Your task to perform on an android device: Check the news Image 0: 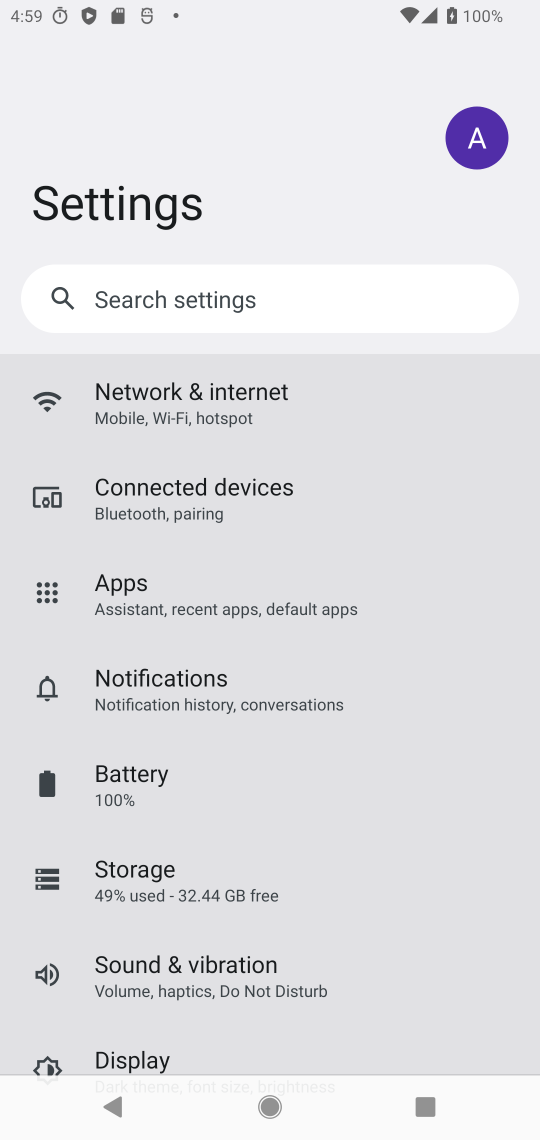
Step 0: press home button
Your task to perform on an android device: Check the news Image 1: 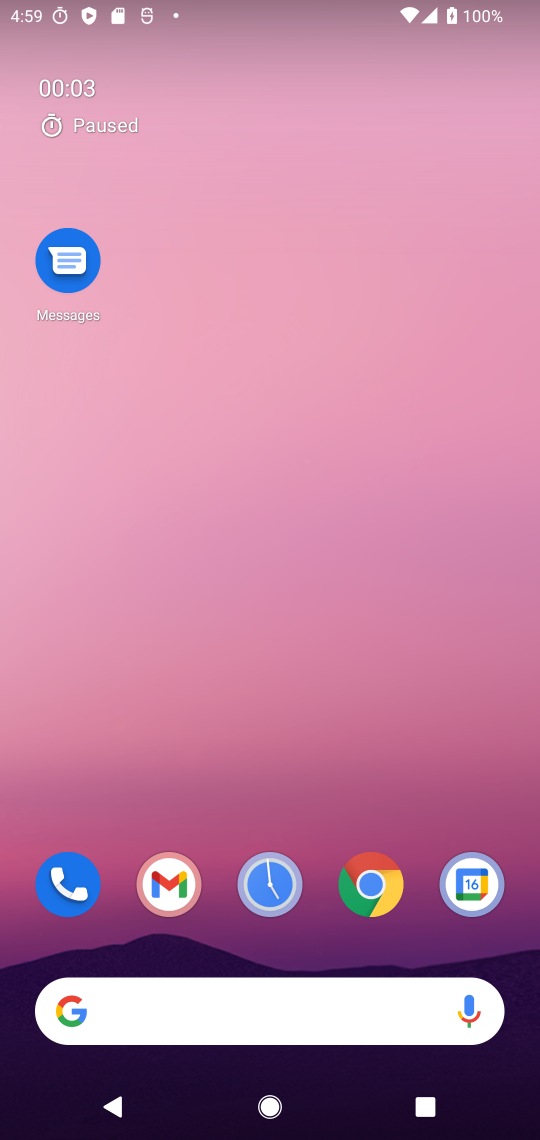
Step 1: click (151, 1014)
Your task to perform on an android device: Check the news Image 2: 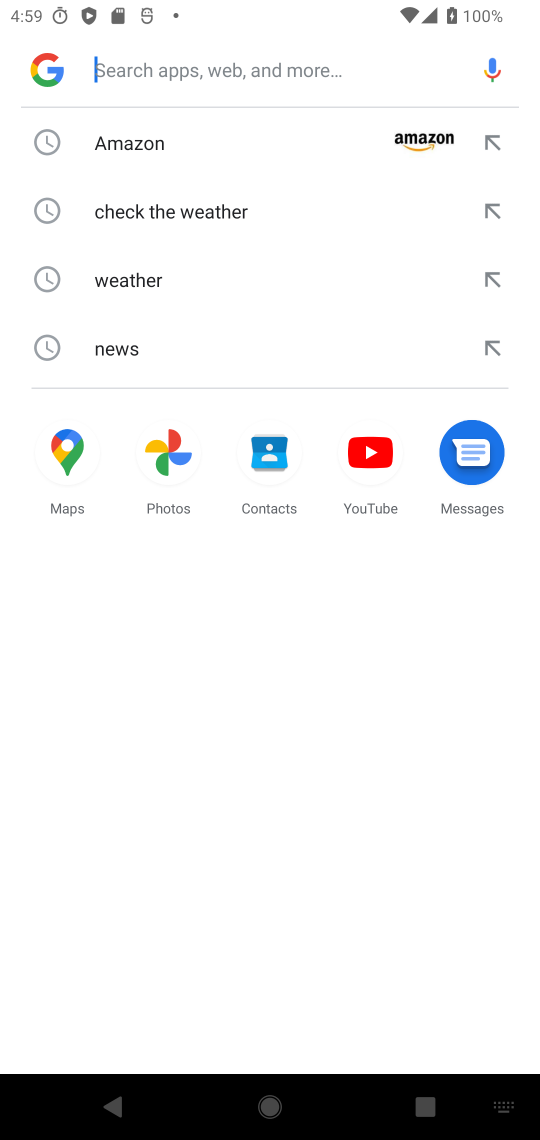
Step 2: type "Check the news"
Your task to perform on an android device: Check the news Image 3: 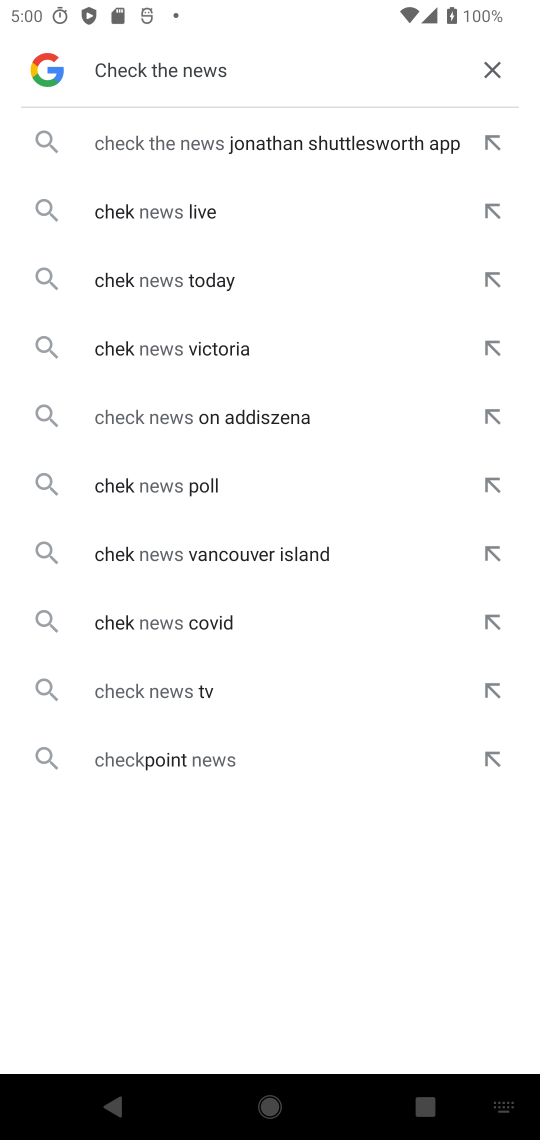
Step 3: type ""
Your task to perform on an android device: Check the news Image 4: 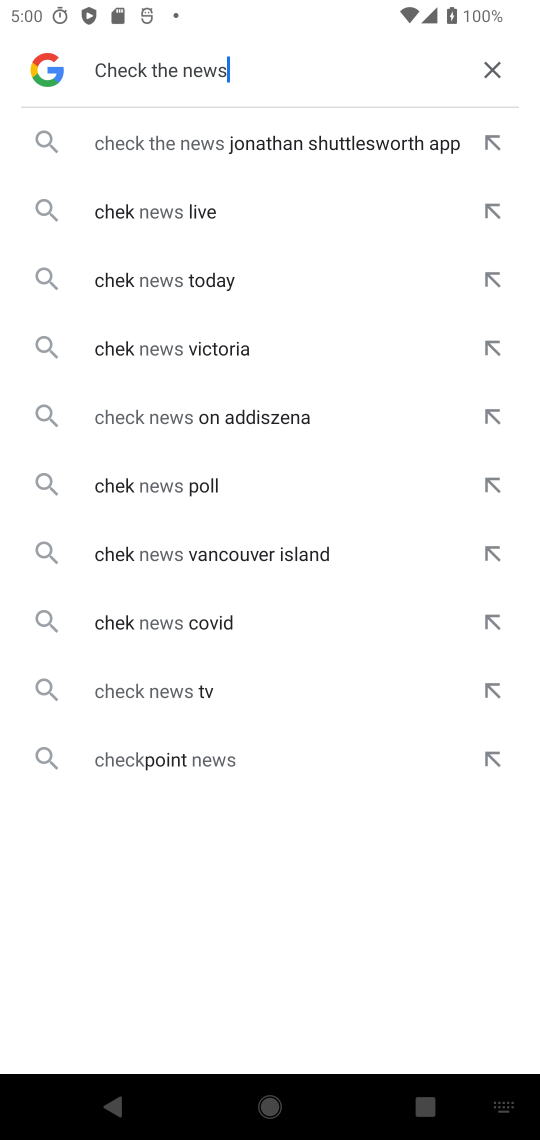
Step 4: task complete